Your task to perform on an android device: Is it going to rain today? Image 0: 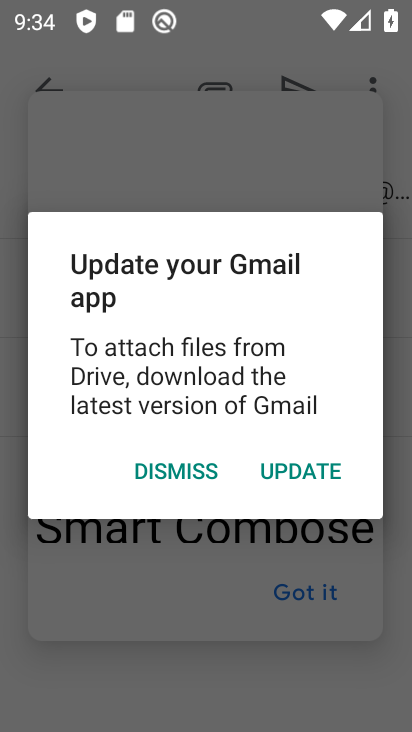
Step 0: press home button
Your task to perform on an android device: Is it going to rain today? Image 1: 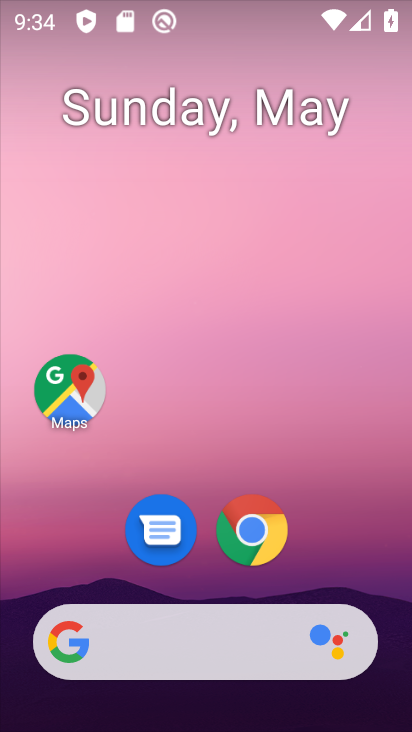
Step 1: click (232, 645)
Your task to perform on an android device: Is it going to rain today? Image 2: 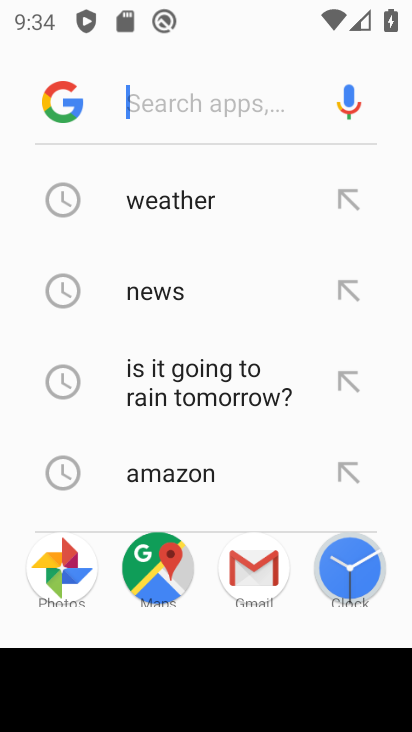
Step 2: type "Is it going to rain today?"
Your task to perform on an android device: Is it going to rain today? Image 3: 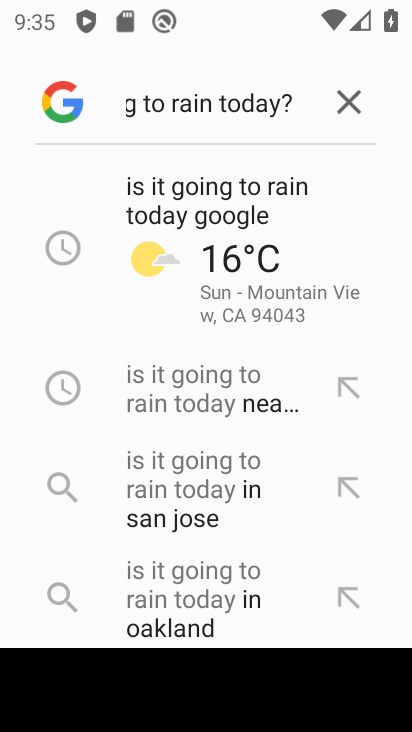
Step 3: click (282, 187)
Your task to perform on an android device: Is it going to rain today? Image 4: 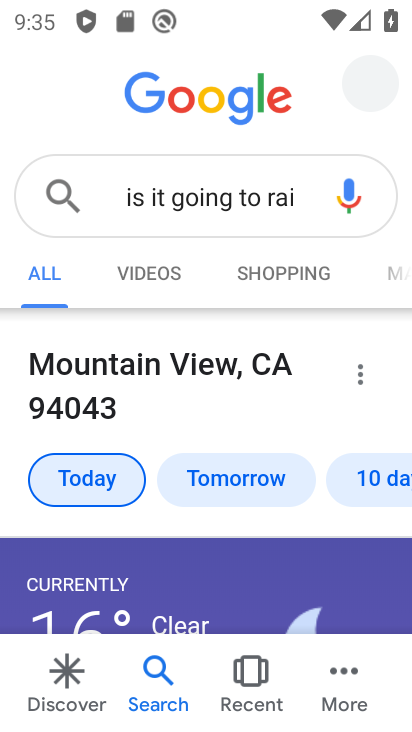
Step 4: task complete